Your task to perform on an android device: Open Yahoo.com Image 0: 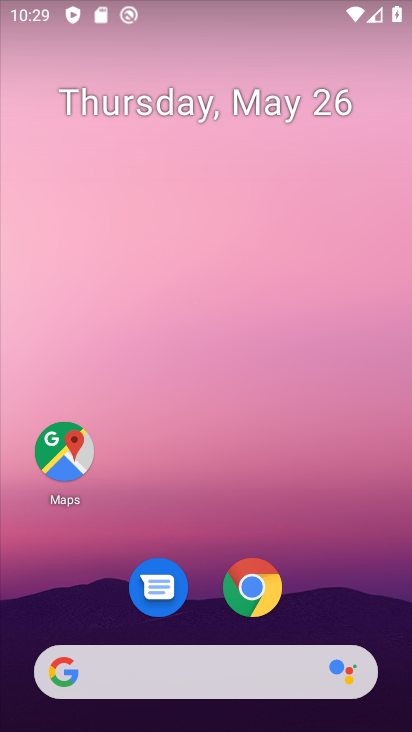
Step 0: drag from (262, 706) to (202, 125)
Your task to perform on an android device: Open Yahoo.com Image 1: 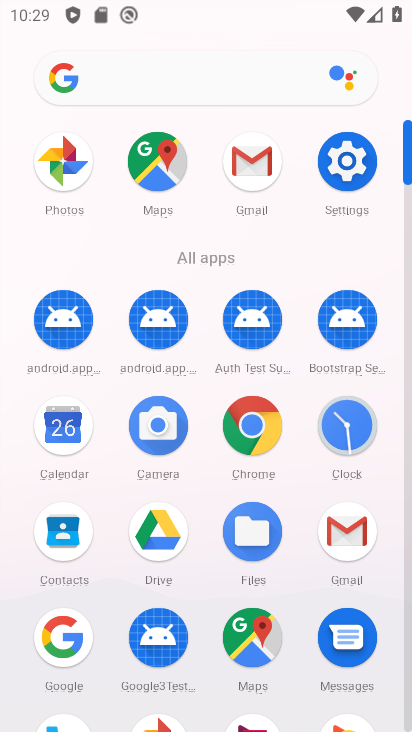
Step 1: click (252, 408)
Your task to perform on an android device: Open Yahoo.com Image 2: 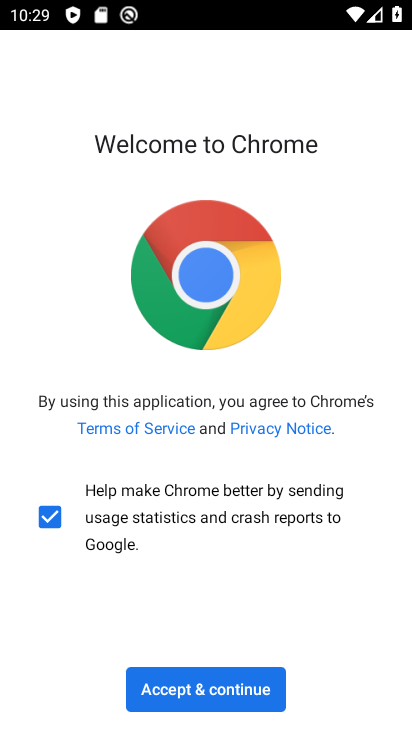
Step 2: click (255, 681)
Your task to perform on an android device: Open Yahoo.com Image 3: 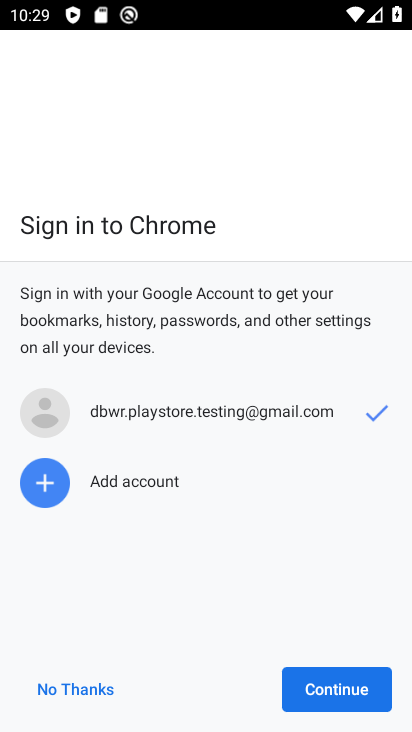
Step 3: click (348, 685)
Your task to perform on an android device: Open Yahoo.com Image 4: 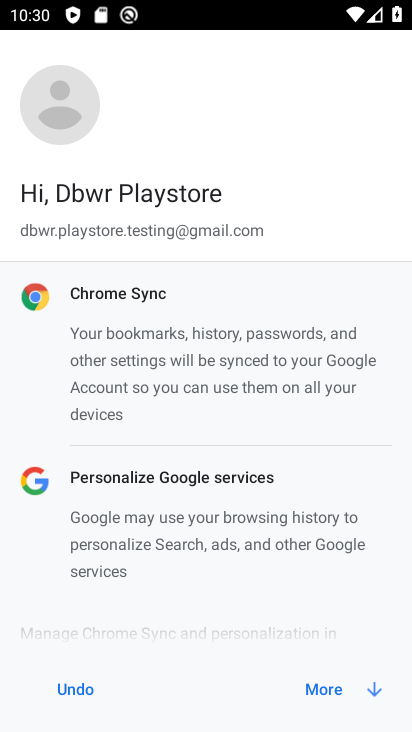
Step 4: click (358, 688)
Your task to perform on an android device: Open Yahoo.com Image 5: 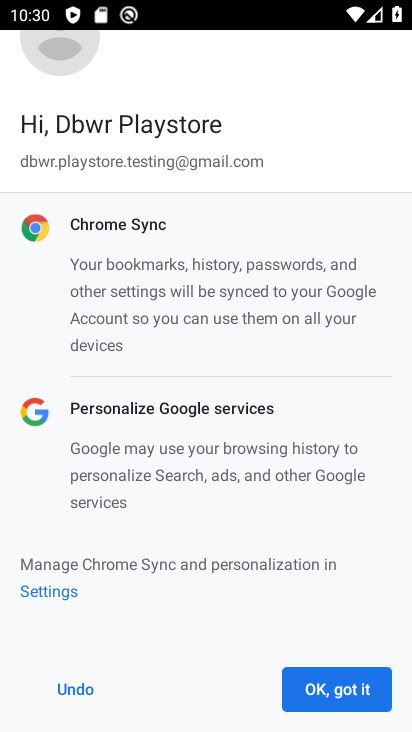
Step 5: click (353, 677)
Your task to perform on an android device: Open Yahoo.com Image 6: 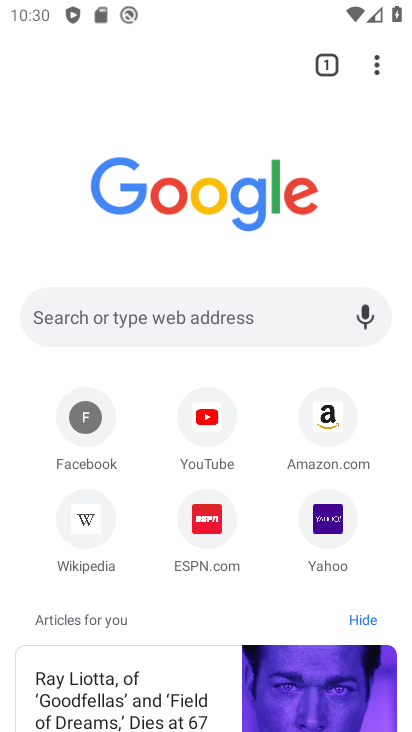
Step 6: click (331, 519)
Your task to perform on an android device: Open Yahoo.com Image 7: 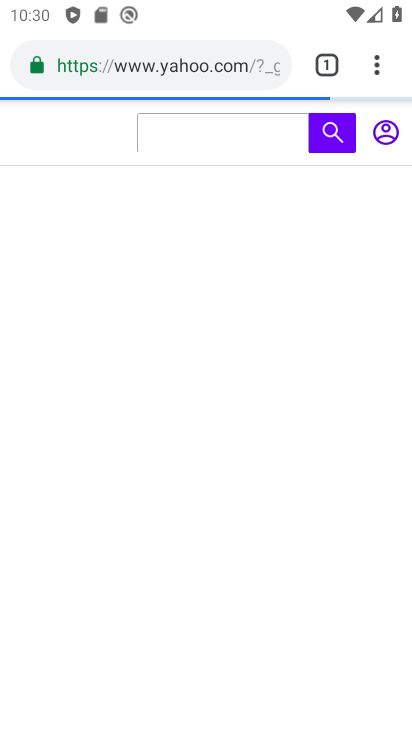
Step 7: task complete